Your task to perform on an android device: turn on priority inbox in the gmail app Image 0: 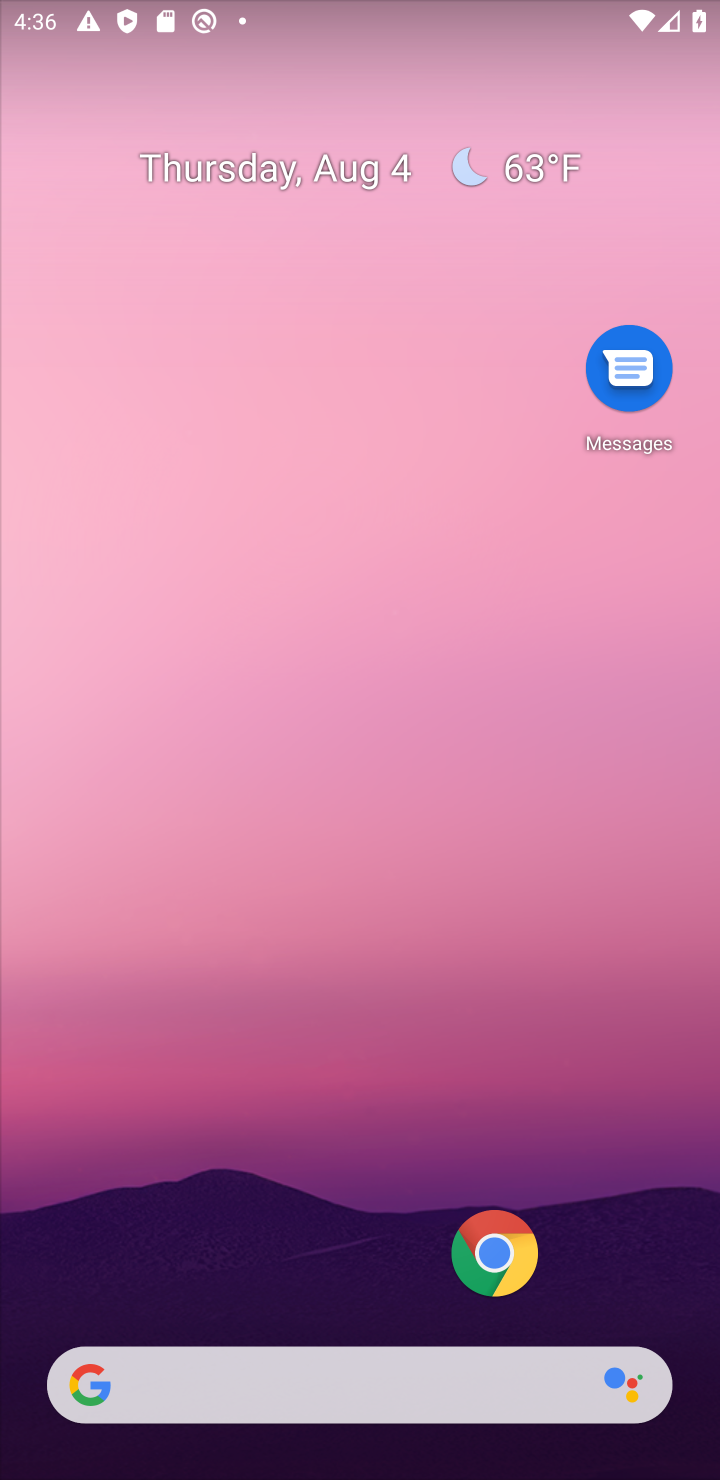
Step 0: drag from (277, 1216) to (416, 243)
Your task to perform on an android device: turn on priority inbox in the gmail app Image 1: 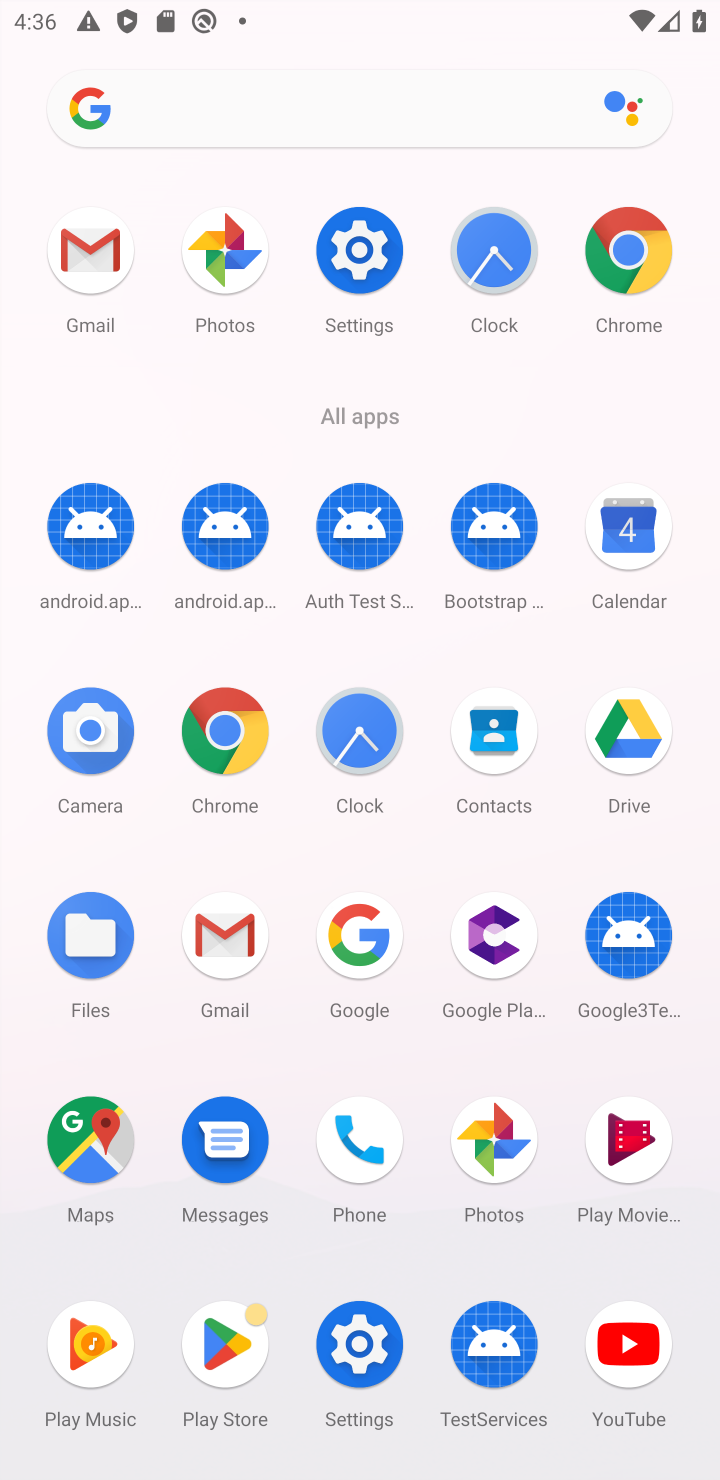
Step 1: click (240, 918)
Your task to perform on an android device: turn on priority inbox in the gmail app Image 2: 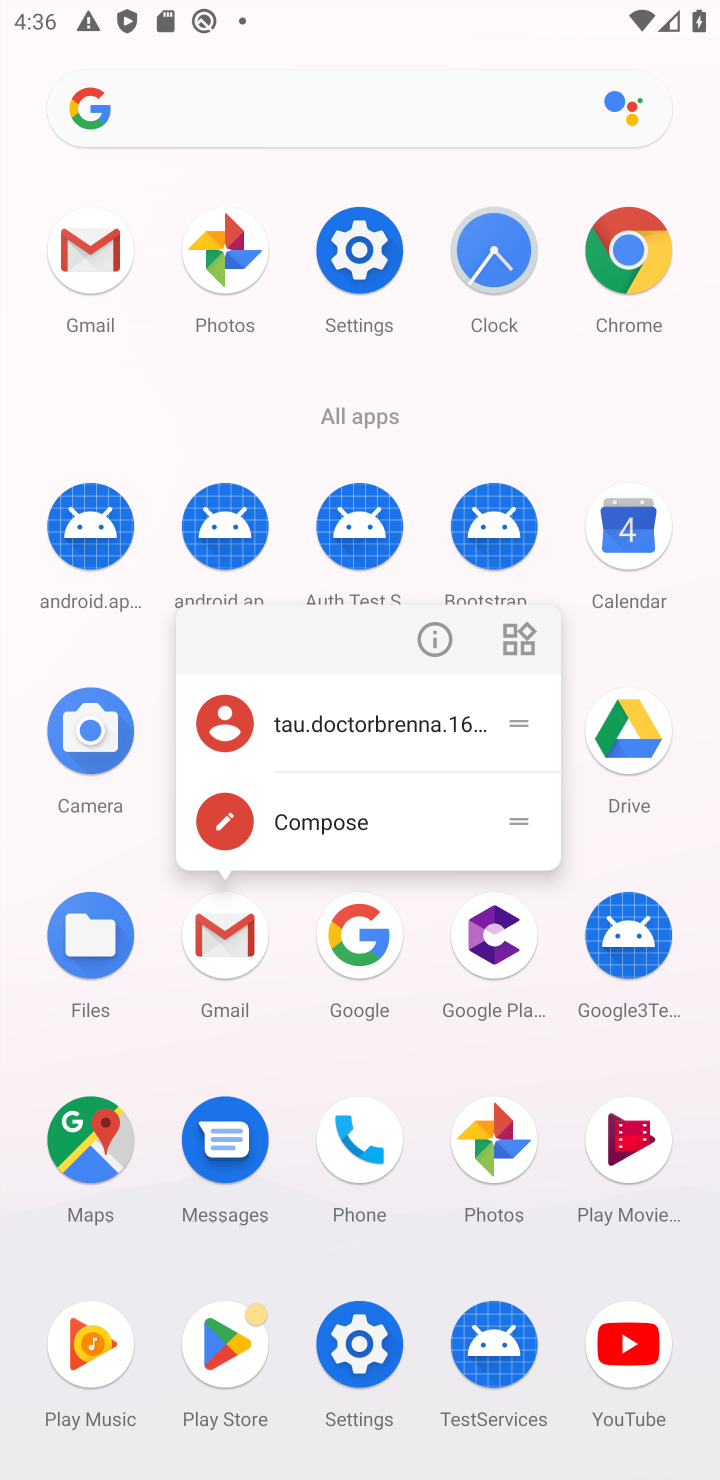
Step 2: click (238, 955)
Your task to perform on an android device: turn on priority inbox in the gmail app Image 3: 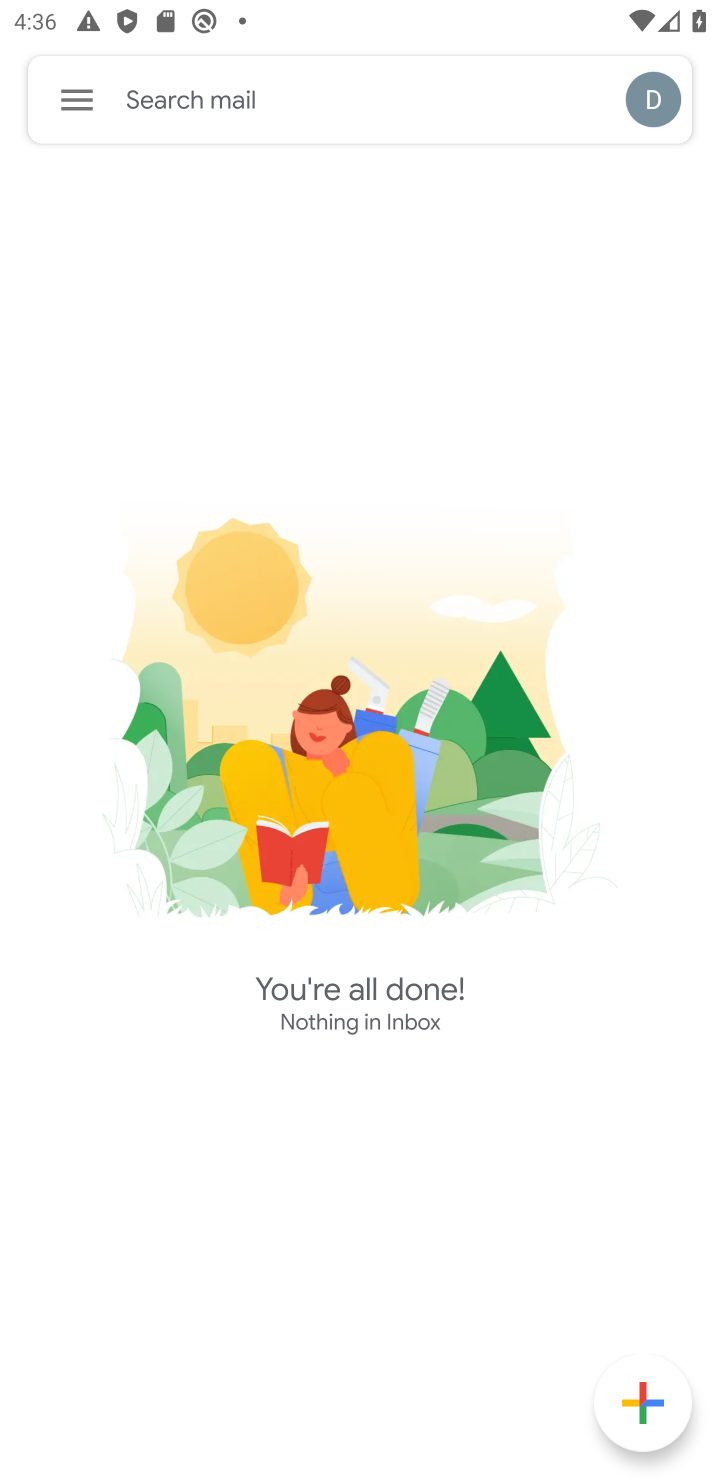
Step 3: click (66, 92)
Your task to perform on an android device: turn on priority inbox in the gmail app Image 4: 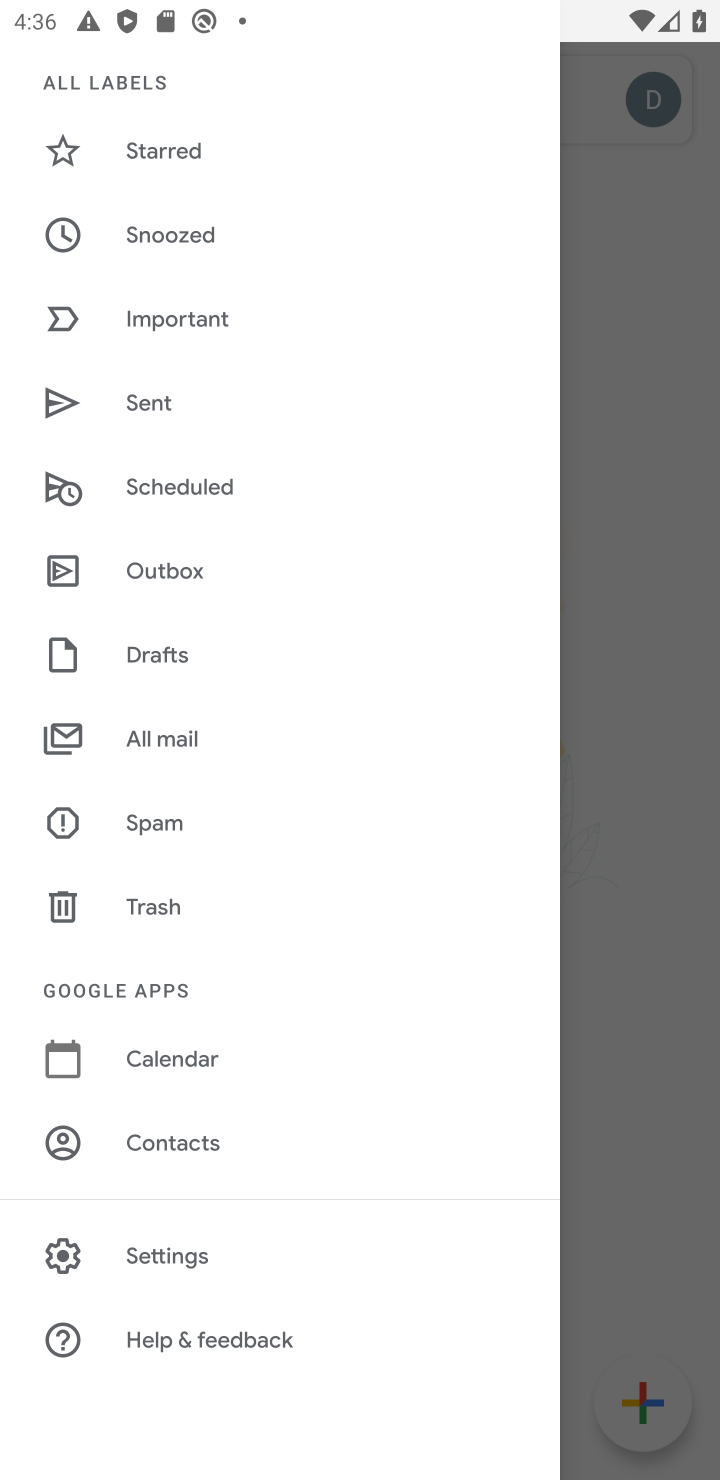
Step 4: click (183, 1253)
Your task to perform on an android device: turn on priority inbox in the gmail app Image 5: 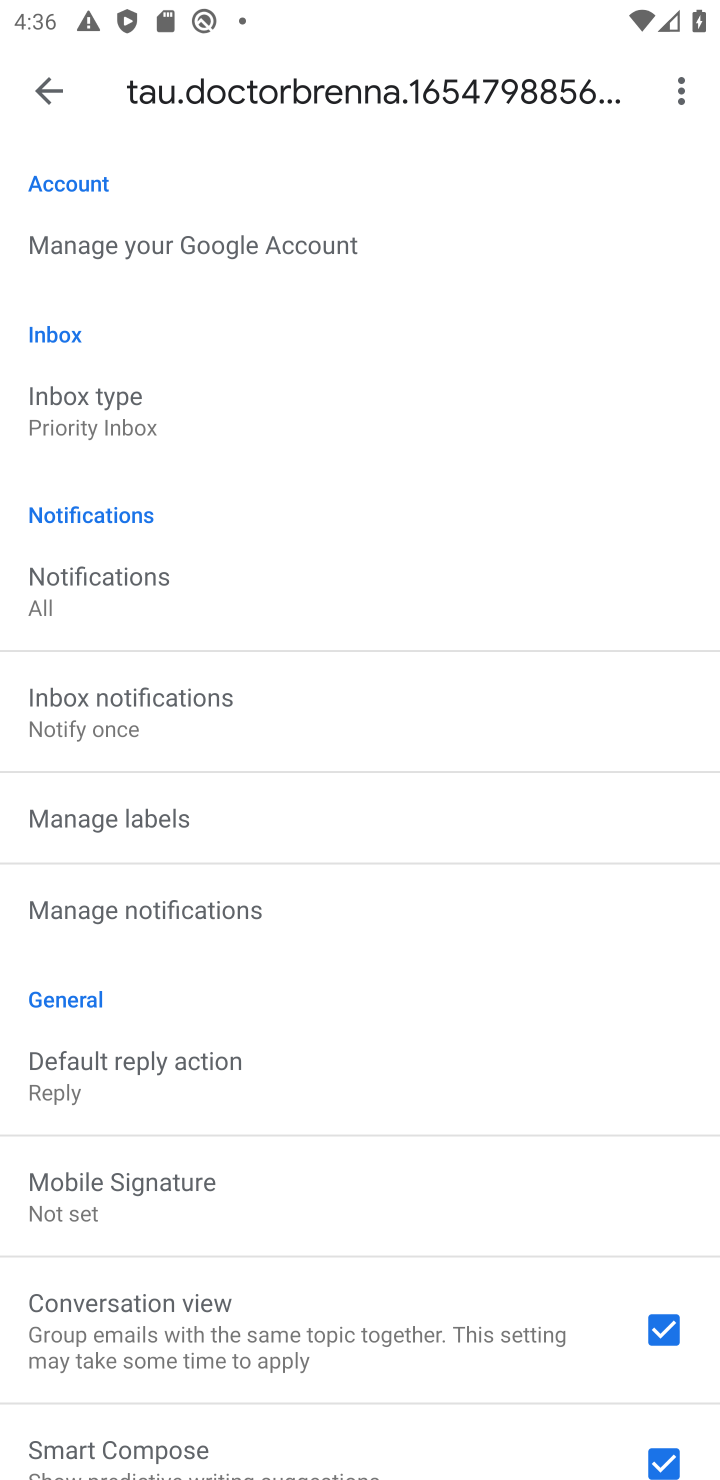
Step 5: click (105, 418)
Your task to perform on an android device: turn on priority inbox in the gmail app Image 6: 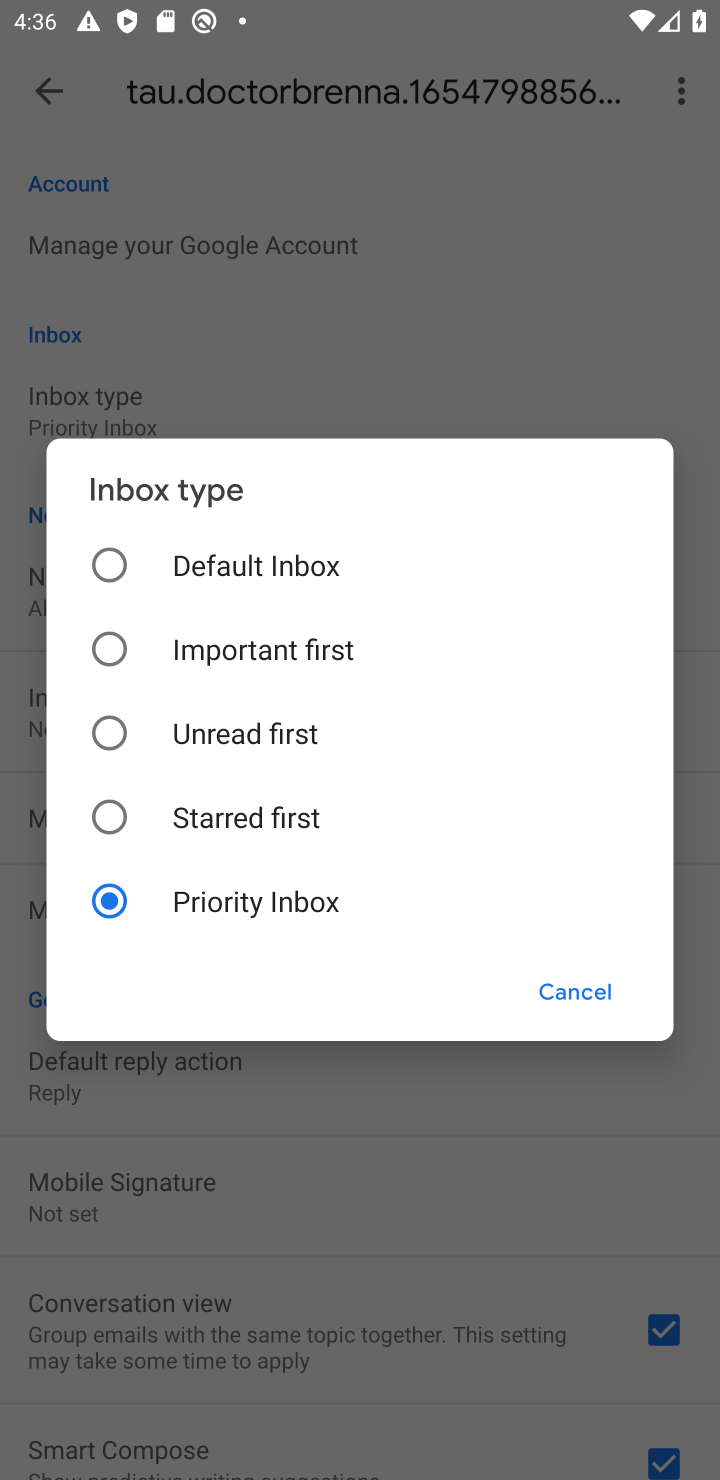
Step 6: click (576, 988)
Your task to perform on an android device: turn on priority inbox in the gmail app Image 7: 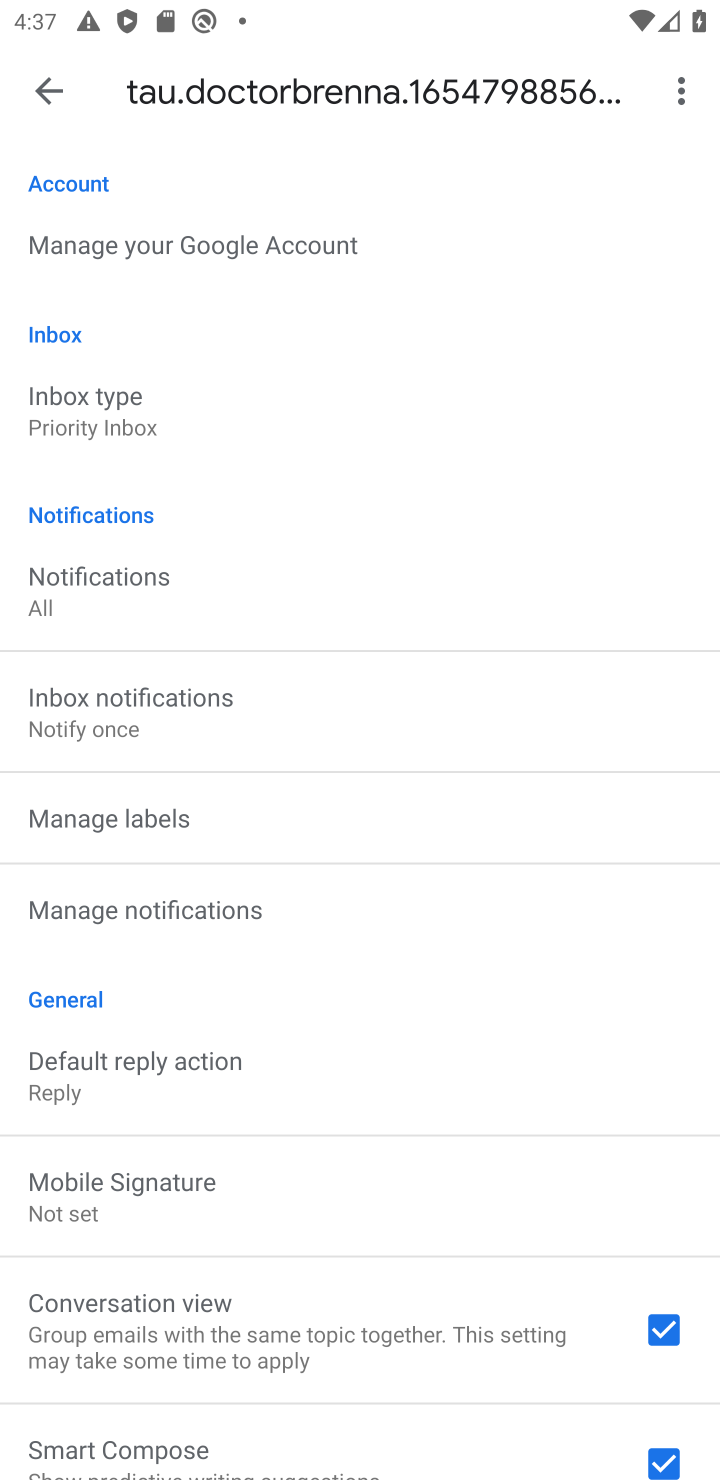
Step 7: task complete